Your task to perform on an android device: open wifi settings Image 0: 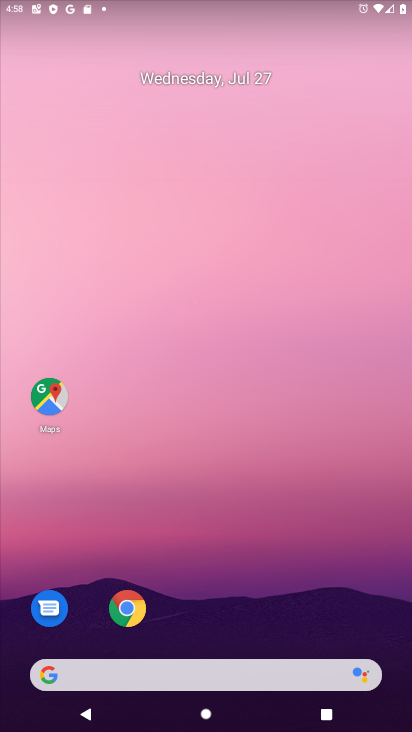
Step 0: drag from (222, 626) to (170, 59)
Your task to perform on an android device: open wifi settings Image 1: 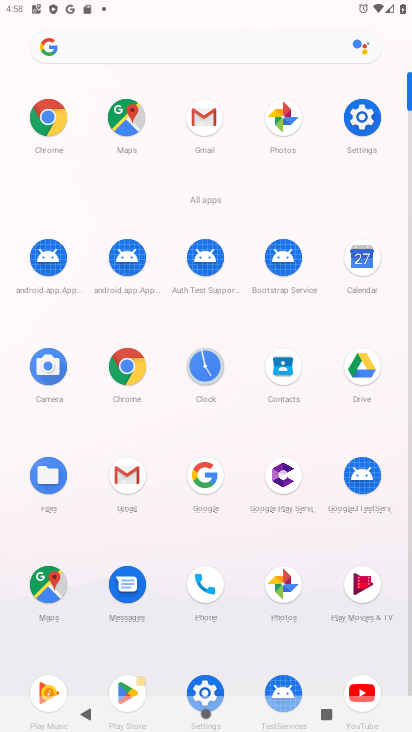
Step 1: click (369, 106)
Your task to perform on an android device: open wifi settings Image 2: 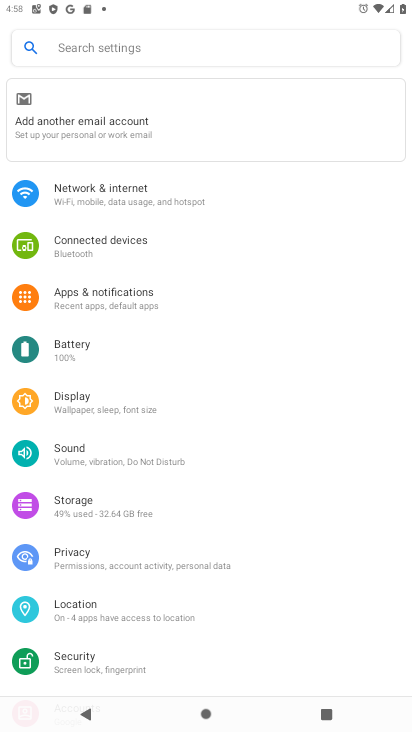
Step 2: click (92, 199)
Your task to perform on an android device: open wifi settings Image 3: 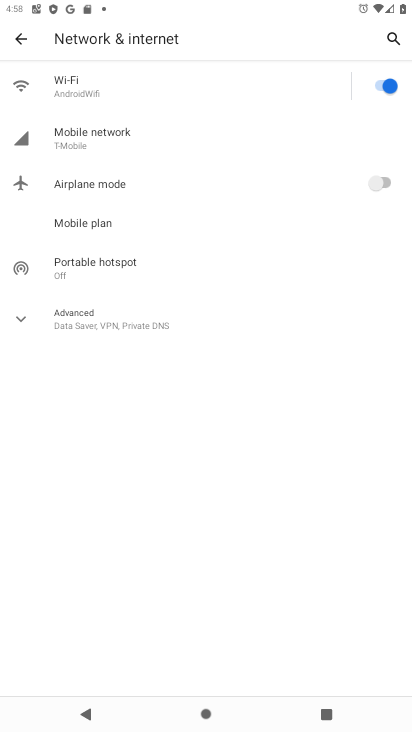
Step 3: click (83, 78)
Your task to perform on an android device: open wifi settings Image 4: 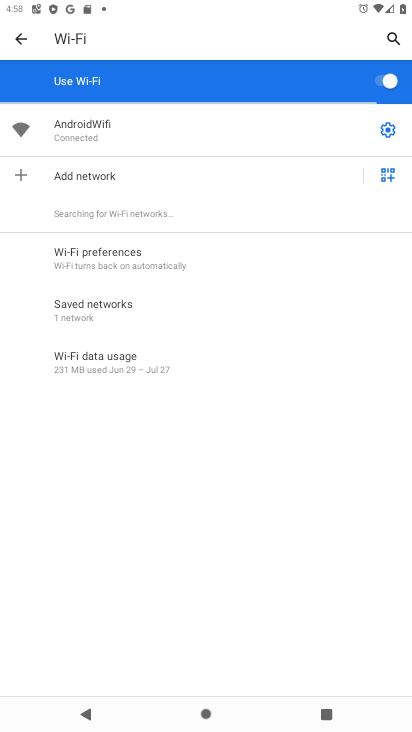
Step 4: task complete